Your task to perform on an android device: change the clock display to analog Image 0: 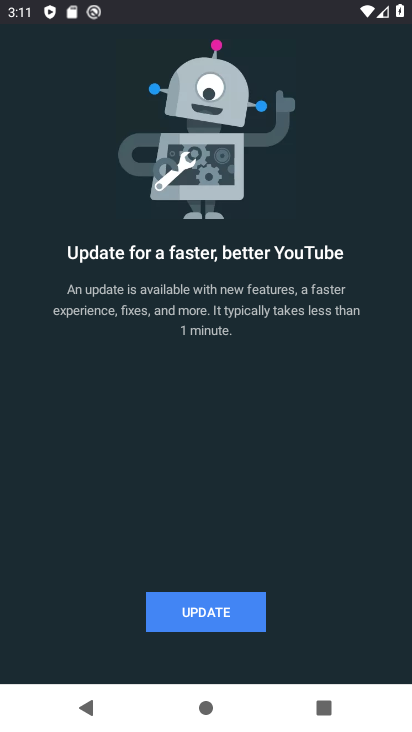
Step 0: press back button
Your task to perform on an android device: change the clock display to analog Image 1: 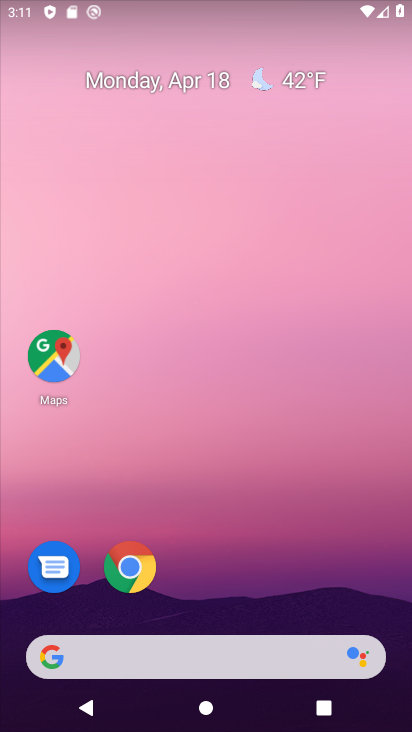
Step 1: drag from (189, 584) to (280, 147)
Your task to perform on an android device: change the clock display to analog Image 2: 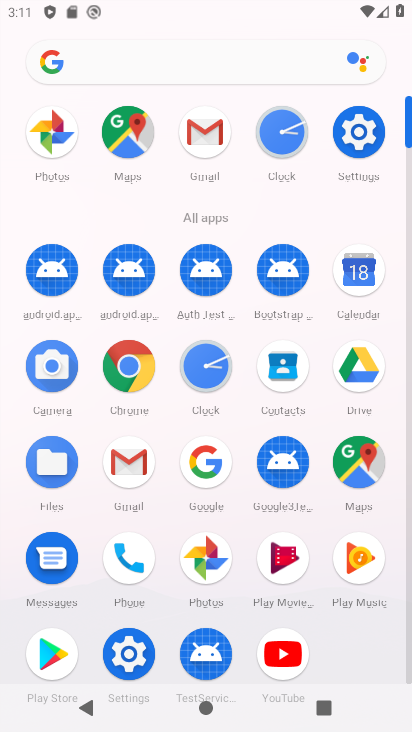
Step 2: click (209, 370)
Your task to perform on an android device: change the clock display to analog Image 3: 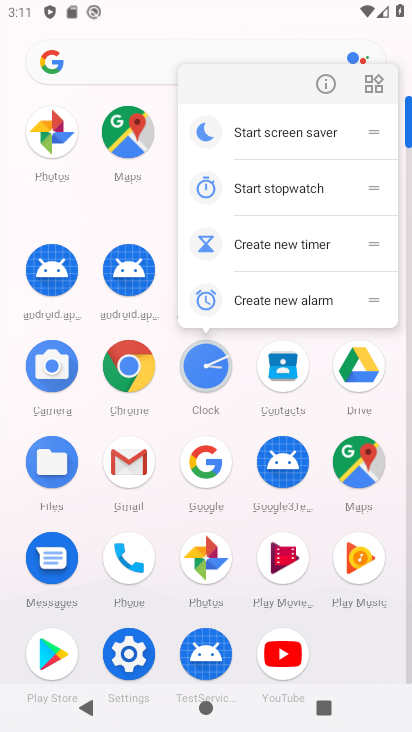
Step 3: click (214, 370)
Your task to perform on an android device: change the clock display to analog Image 4: 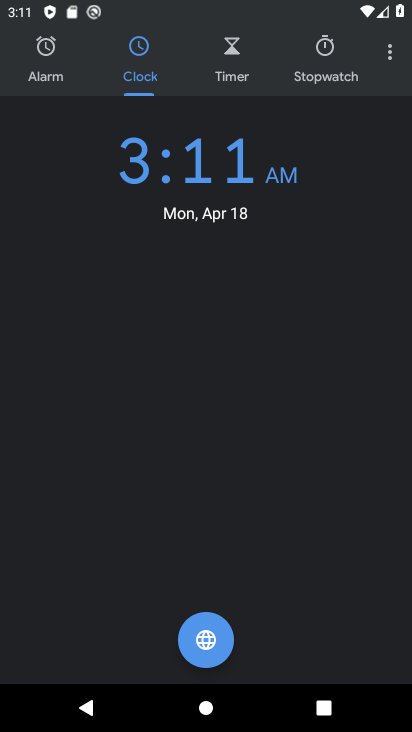
Step 4: click (390, 53)
Your task to perform on an android device: change the clock display to analog Image 5: 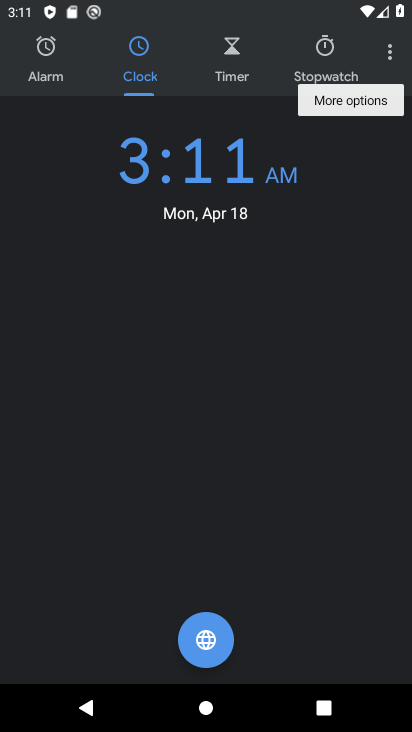
Step 5: click (379, 101)
Your task to perform on an android device: change the clock display to analog Image 6: 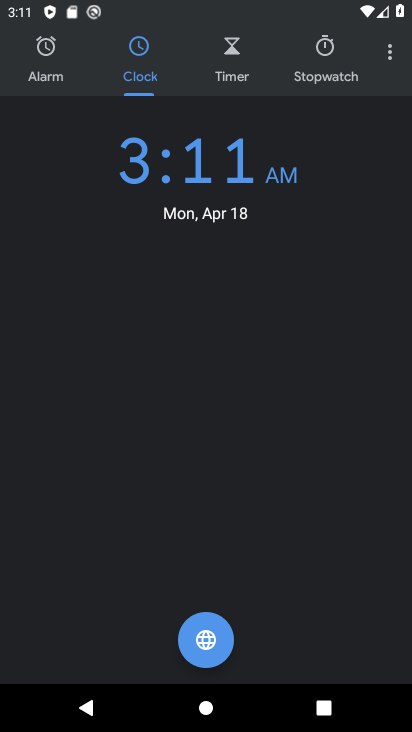
Step 6: click (389, 46)
Your task to perform on an android device: change the clock display to analog Image 7: 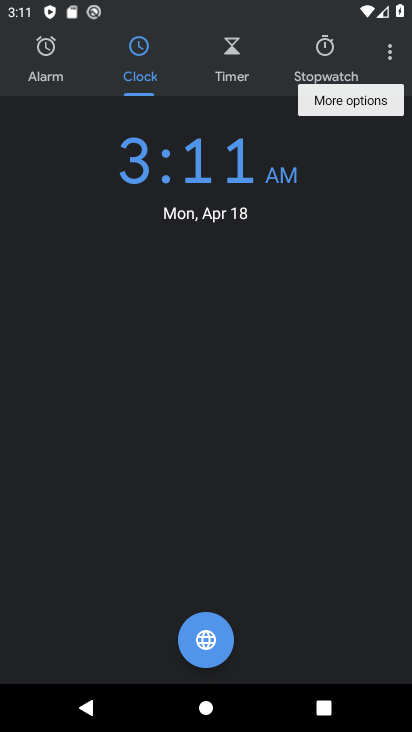
Step 7: click (377, 90)
Your task to perform on an android device: change the clock display to analog Image 8: 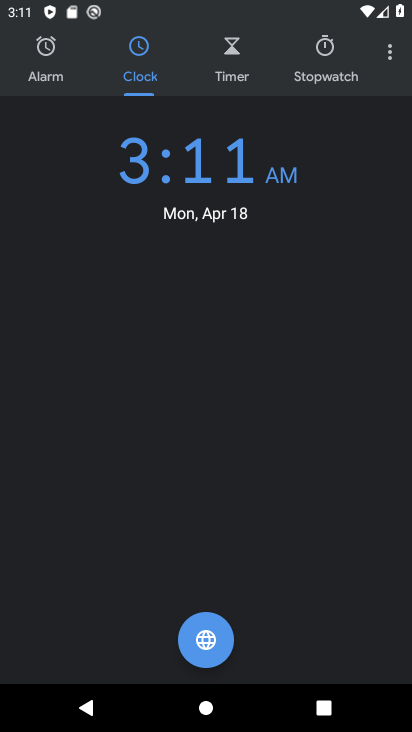
Step 8: click (382, 64)
Your task to perform on an android device: change the clock display to analog Image 9: 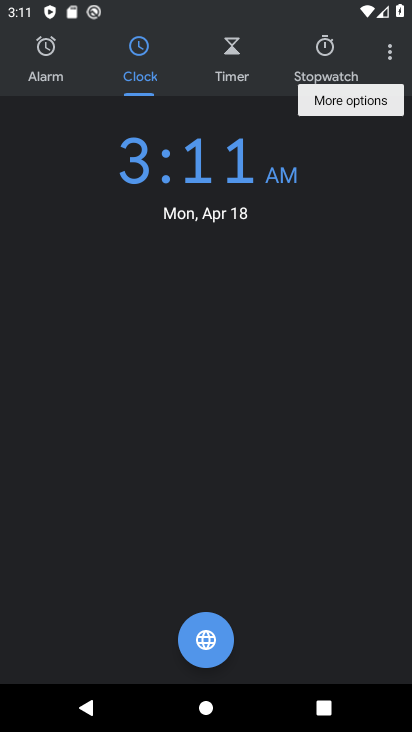
Step 9: click (388, 47)
Your task to perform on an android device: change the clock display to analog Image 10: 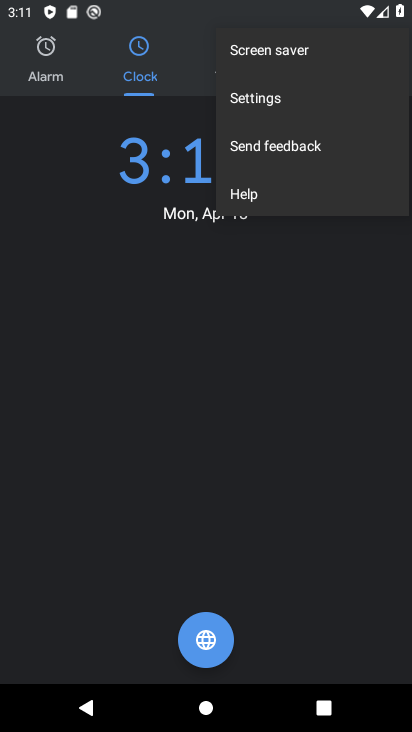
Step 10: click (363, 101)
Your task to perform on an android device: change the clock display to analog Image 11: 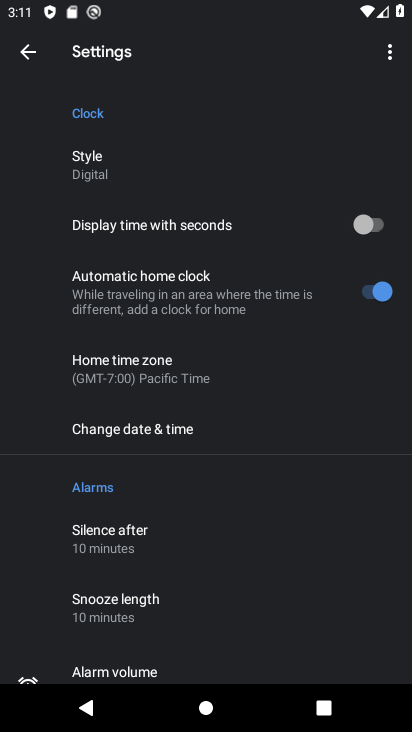
Step 11: click (212, 183)
Your task to perform on an android device: change the clock display to analog Image 12: 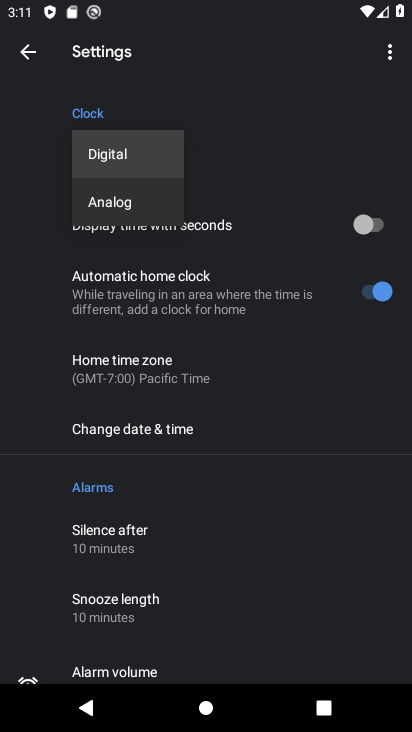
Step 12: click (152, 205)
Your task to perform on an android device: change the clock display to analog Image 13: 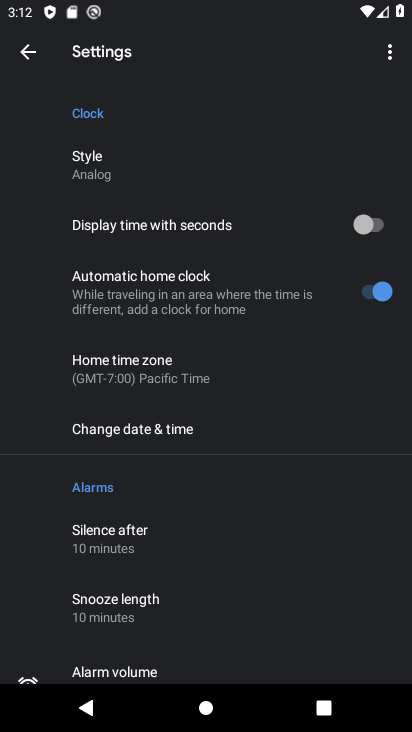
Step 13: task complete